Your task to perform on an android device: Go to battery settings Image 0: 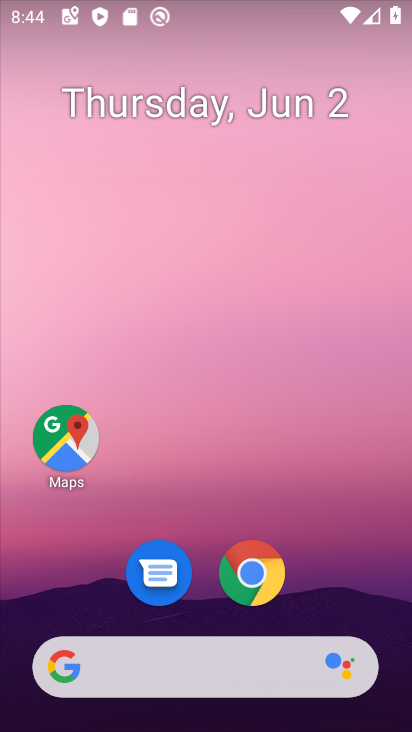
Step 0: drag from (348, 579) to (348, 1)
Your task to perform on an android device: Go to battery settings Image 1: 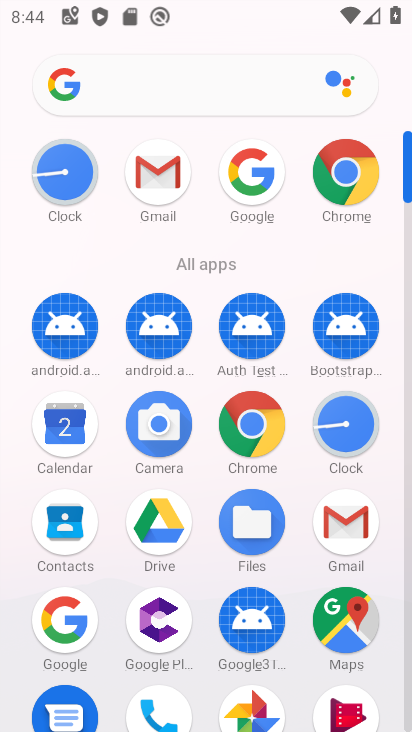
Step 1: click (406, 719)
Your task to perform on an android device: Go to battery settings Image 2: 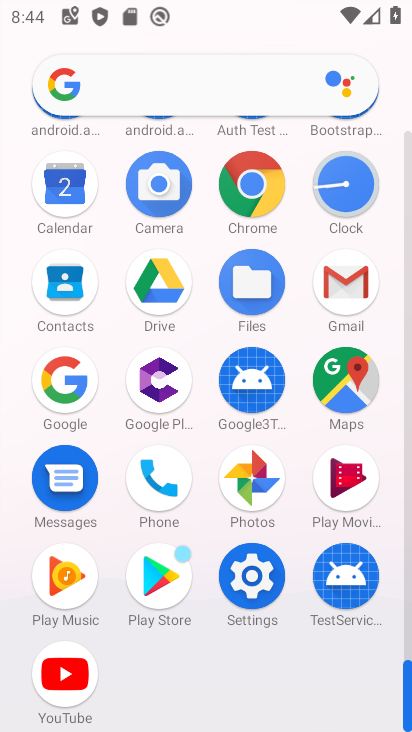
Step 2: click (247, 595)
Your task to perform on an android device: Go to battery settings Image 3: 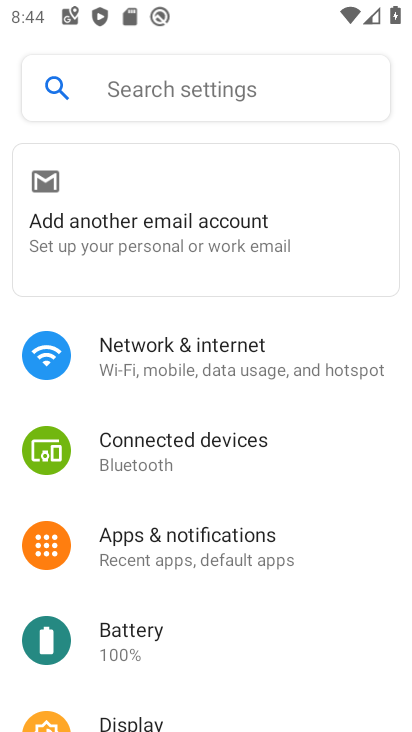
Step 3: click (144, 647)
Your task to perform on an android device: Go to battery settings Image 4: 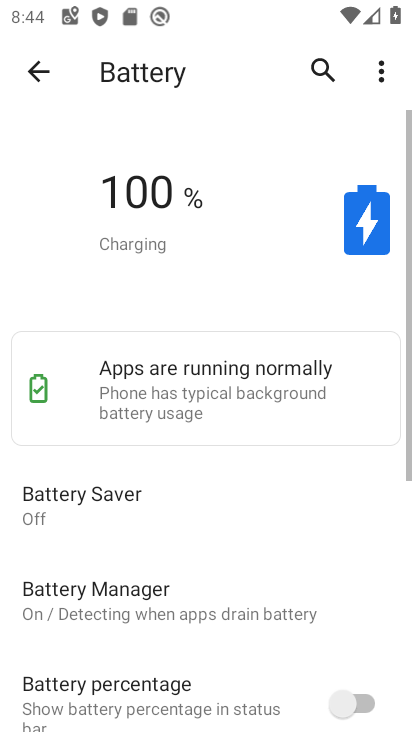
Step 4: task complete